Your task to perform on an android device: move a message to another label in the gmail app Image 0: 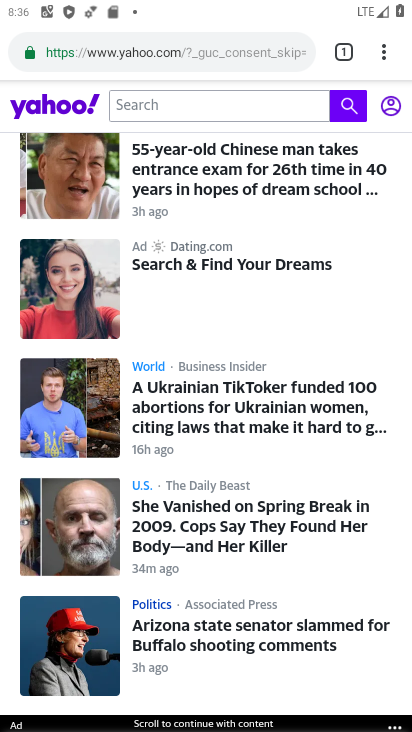
Step 0: press home button
Your task to perform on an android device: move a message to another label in the gmail app Image 1: 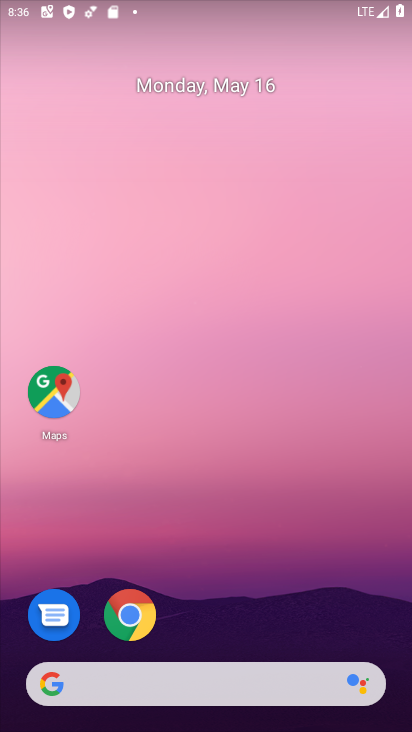
Step 1: drag from (214, 612) to (289, 71)
Your task to perform on an android device: move a message to another label in the gmail app Image 2: 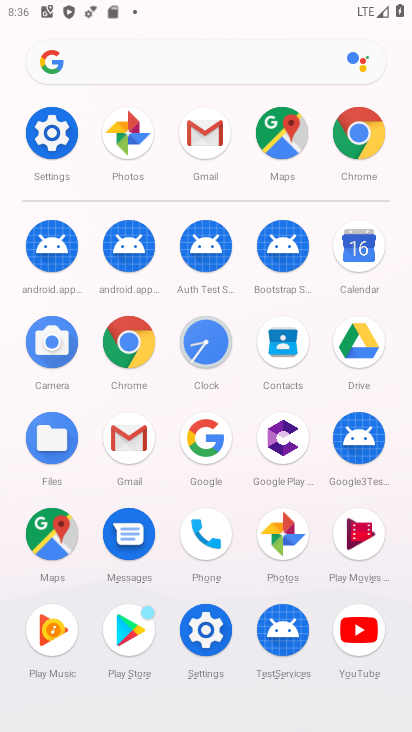
Step 2: click (127, 445)
Your task to perform on an android device: move a message to another label in the gmail app Image 3: 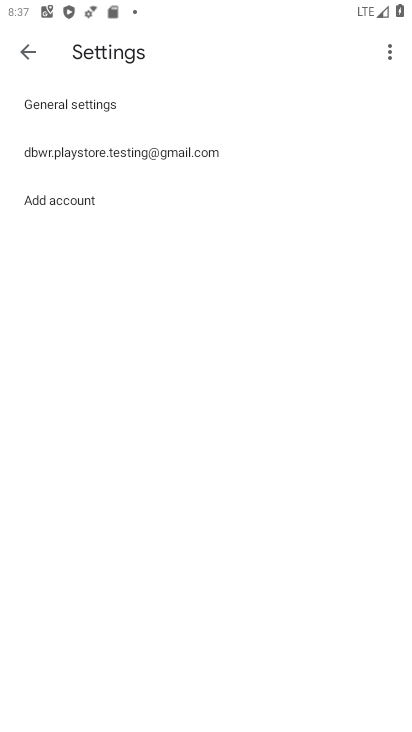
Step 3: click (30, 62)
Your task to perform on an android device: move a message to another label in the gmail app Image 4: 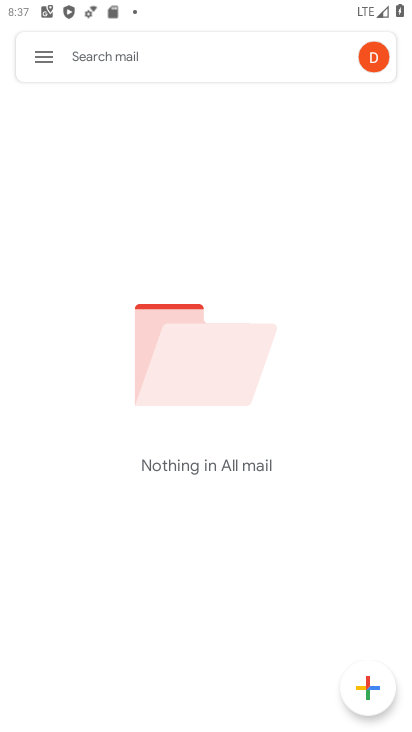
Step 4: task complete